Your task to perform on an android device: change your default location settings in chrome Image 0: 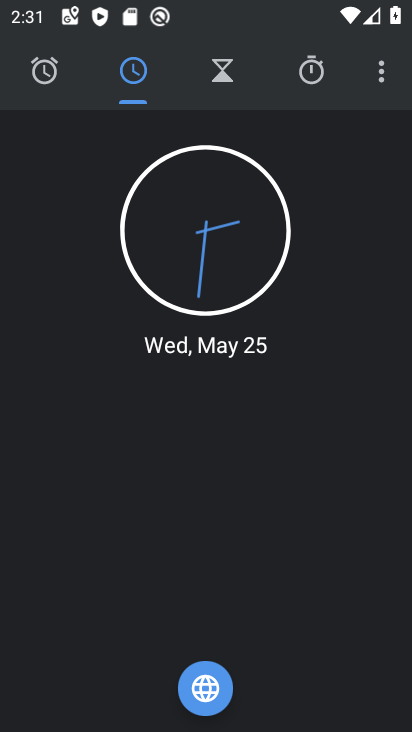
Step 0: press home button
Your task to perform on an android device: change your default location settings in chrome Image 1: 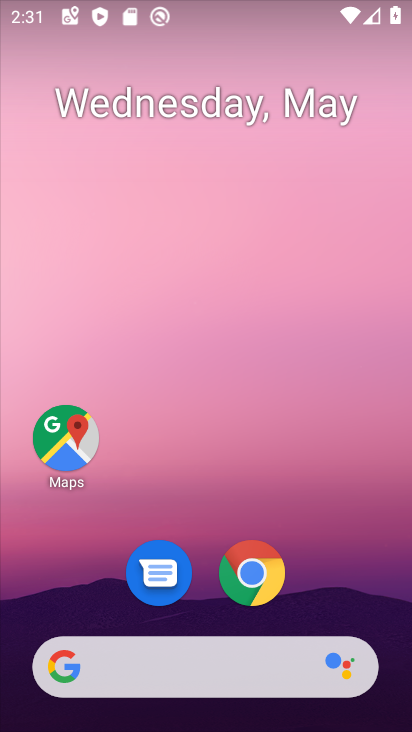
Step 1: click (247, 574)
Your task to perform on an android device: change your default location settings in chrome Image 2: 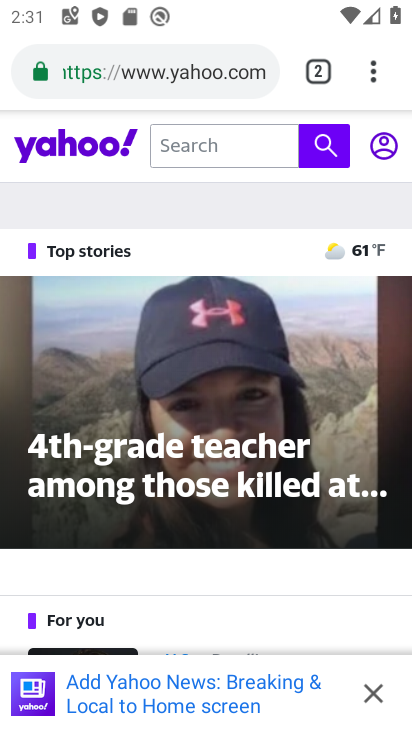
Step 2: click (363, 76)
Your task to perform on an android device: change your default location settings in chrome Image 3: 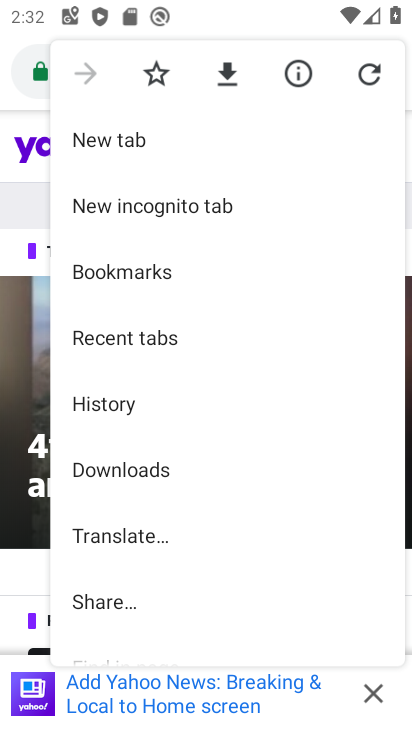
Step 3: drag from (159, 606) to (173, 324)
Your task to perform on an android device: change your default location settings in chrome Image 4: 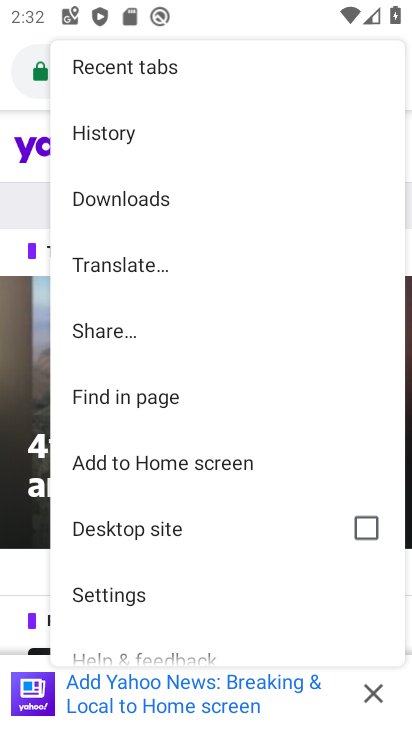
Step 4: click (140, 594)
Your task to perform on an android device: change your default location settings in chrome Image 5: 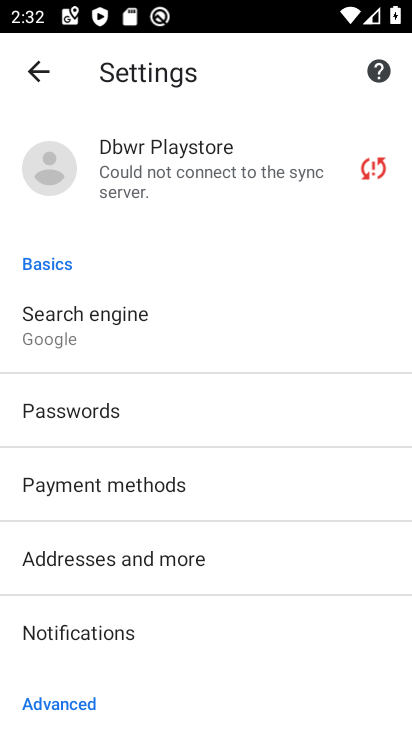
Step 5: drag from (171, 663) to (188, 223)
Your task to perform on an android device: change your default location settings in chrome Image 6: 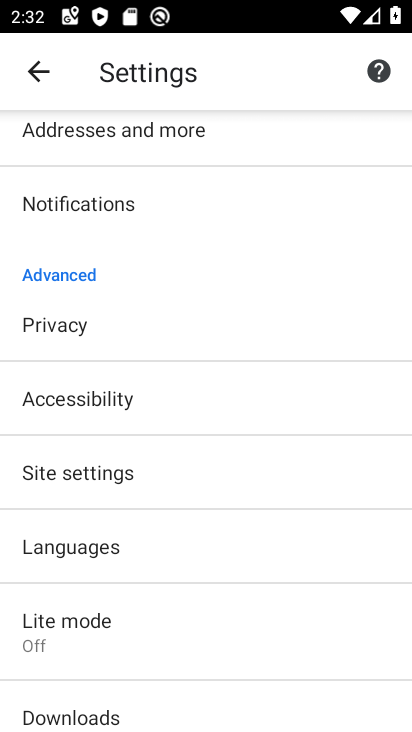
Step 6: click (72, 473)
Your task to perform on an android device: change your default location settings in chrome Image 7: 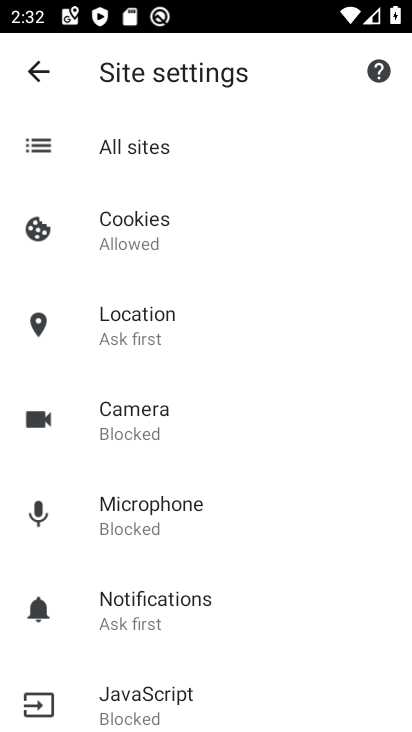
Step 7: click (131, 347)
Your task to perform on an android device: change your default location settings in chrome Image 8: 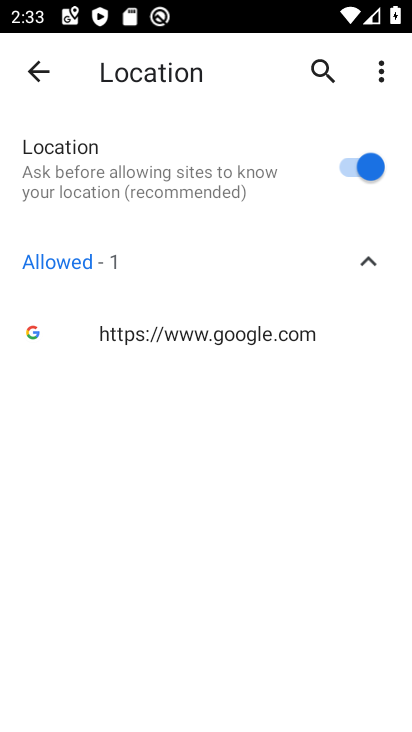
Step 8: click (354, 170)
Your task to perform on an android device: change your default location settings in chrome Image 9: 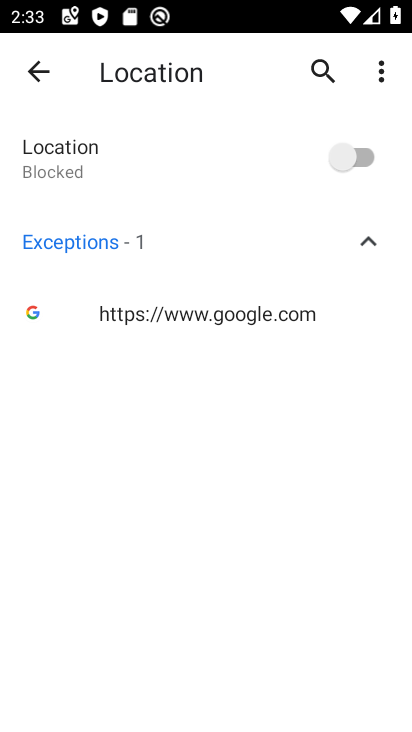
Step 9: task complete